Your task to perform on an android device: Open settings on Google Maps Image 0: 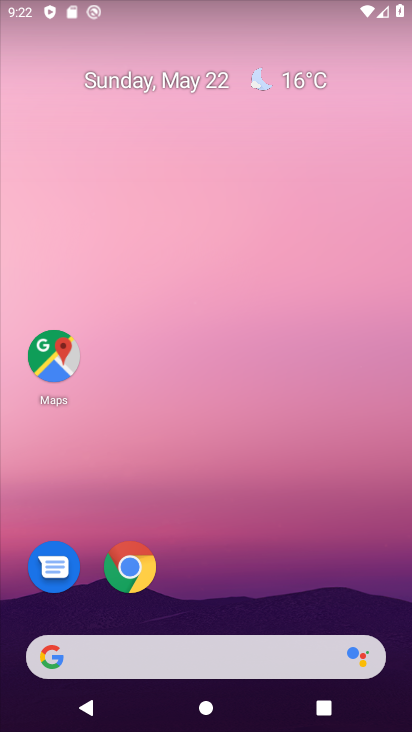
Step 0: click (217, 616)
Your task to perform on an android device: Open settings on Google Maps Image 1: 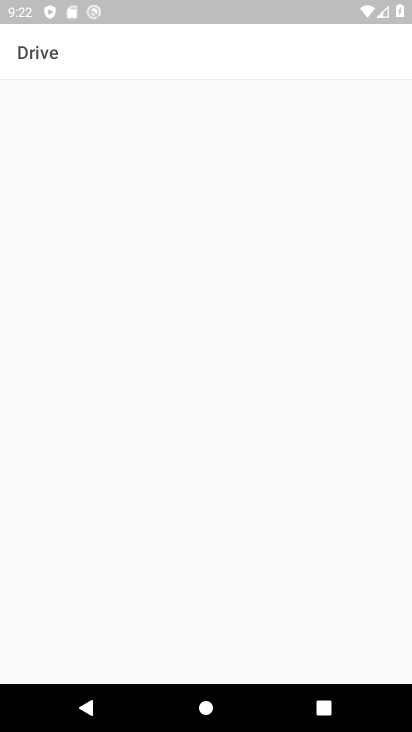
Step 1: press home button
Your task to perform on an android device: Open settings on Google Maps Image 2: 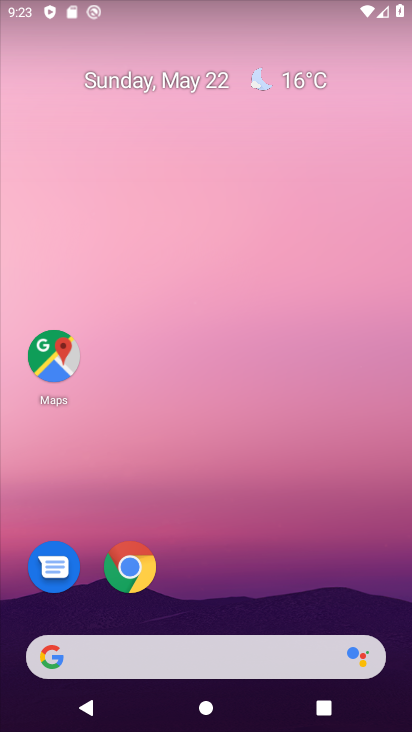
Step 2: drag from (212, 634) to (217, 6)
Your task to perform on an android device: Open settings on Google Maps Image 3: 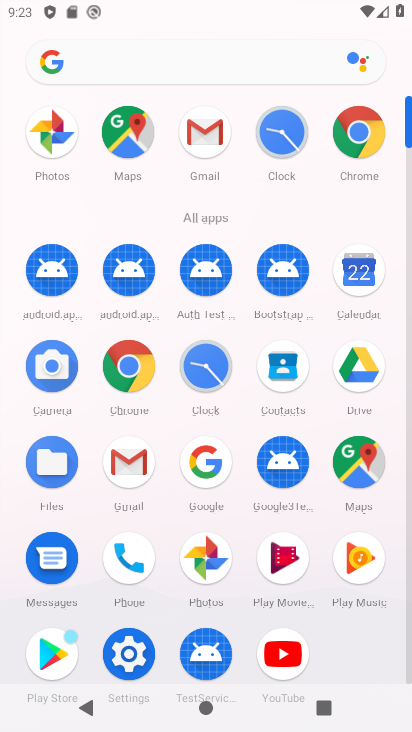
Step 3: click (381, 453)
Your task to perform on an android device: Open settings on Google Maps Image 4: 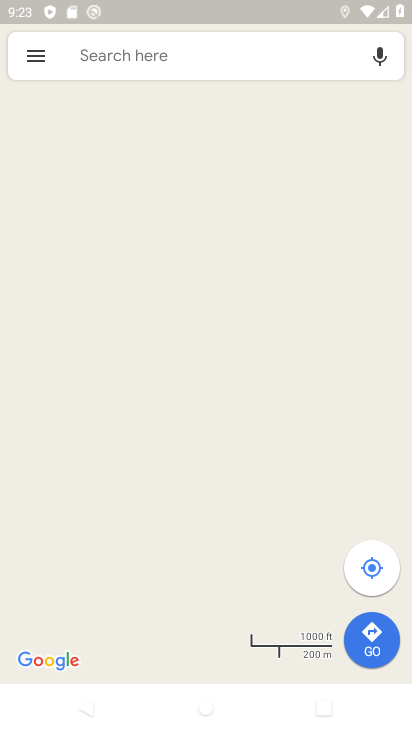
Step 4: click (25, 51)
Your task to perform on an android device: Open settings on Google Maps Image 5: 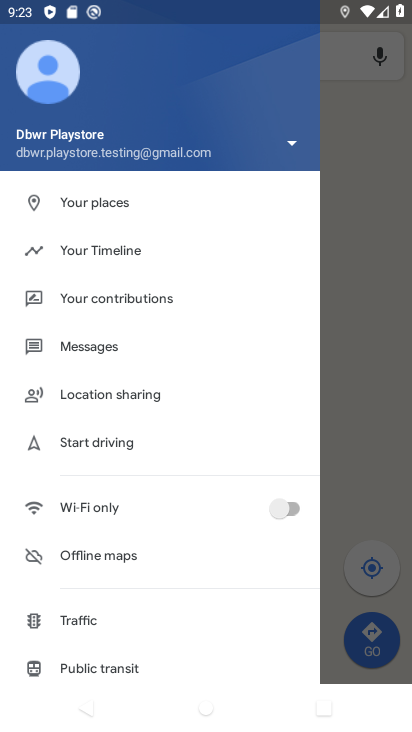
Step 5: drag from (49, 543) to (99, 14)
Your task to perform on an android device: Open settings on Google Maps Image 6: 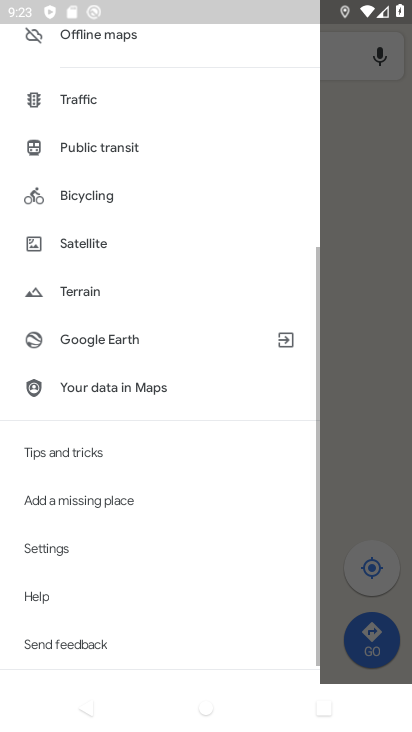
Step 6: click (56, 546)
Your task to perform on an android device: Open settings on Google Maps Image 7: 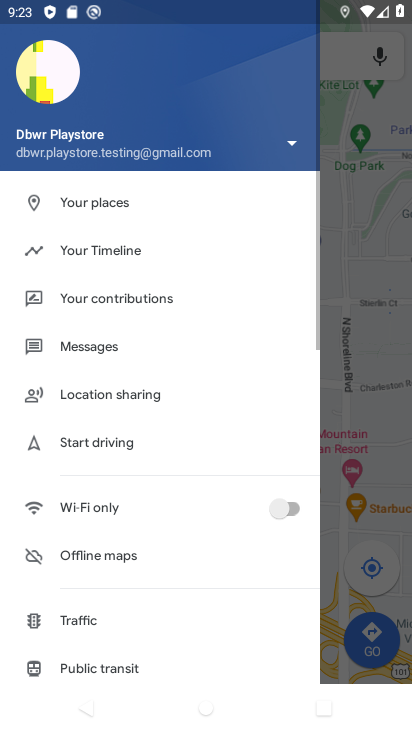
Step 7: drag from (228, 618) to (235, 147)
Your task to perform on an android device: Open settings on Google Maps Image 8: 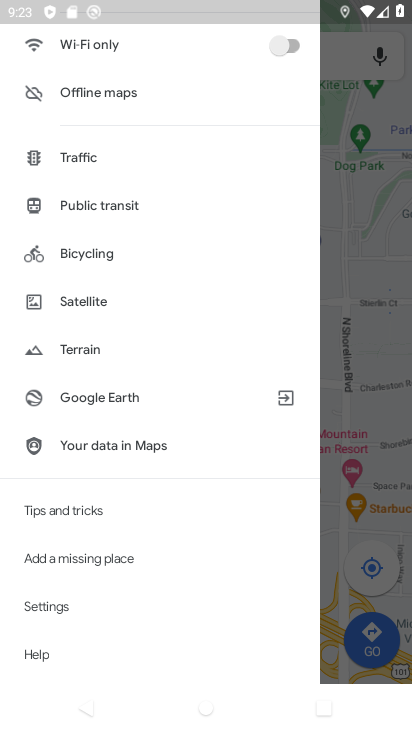
Step 8: click (33, 617)
Your task to perform on an android device: Open settings on Google Maps Image 9: 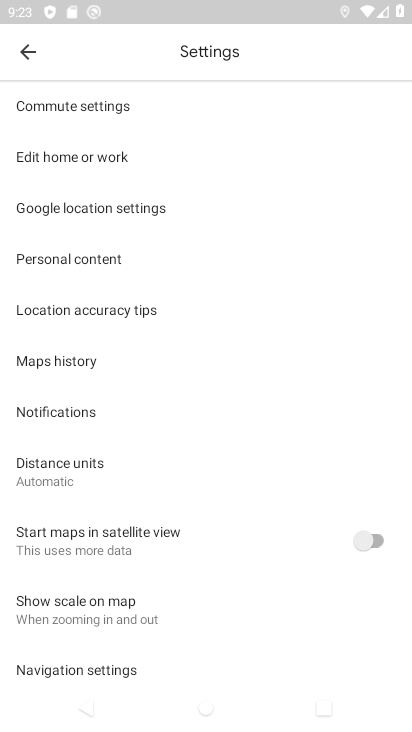
Step 9: task complete